Your task to perform on an android device: change the clock display to analog Image 0: 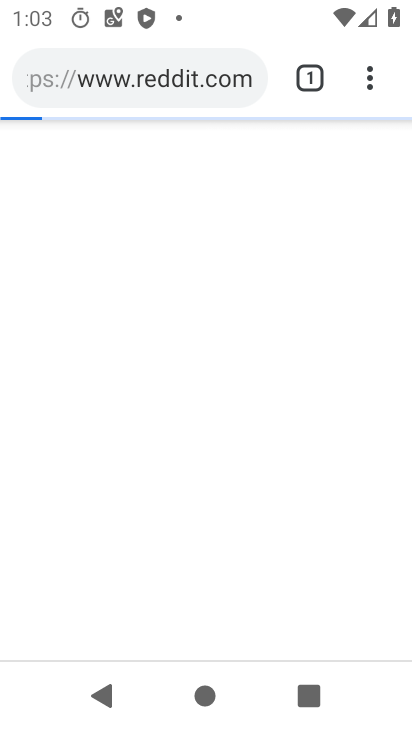
Step 0: press home button
Your task to perform on an android device: change the clock display to analog Image 1: 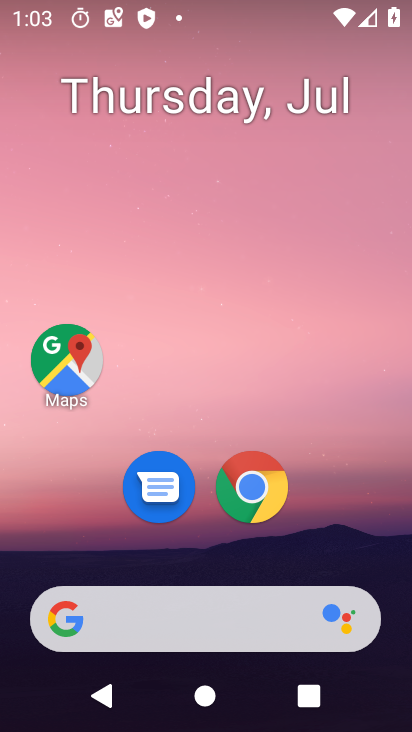
Step 1: drag from (212, 627) to (204, 246)
Your task to perform on an android device: change the clock display to analog Image 2: 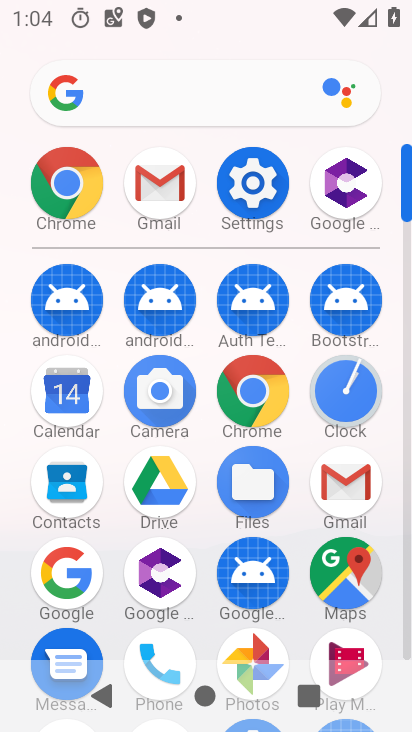
Step 2: click (340, 383)
Your task to perform on an android device: change the clock display to analog Image 3: 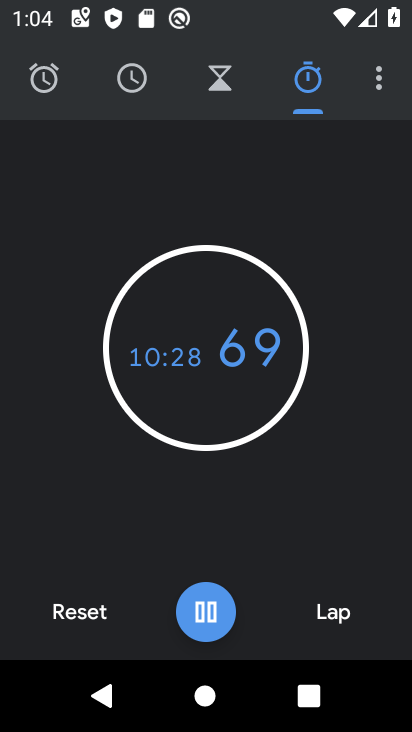
Step 3: click (386, 89)
Your task to perform on an android device: change the clock display to analog Image 4: 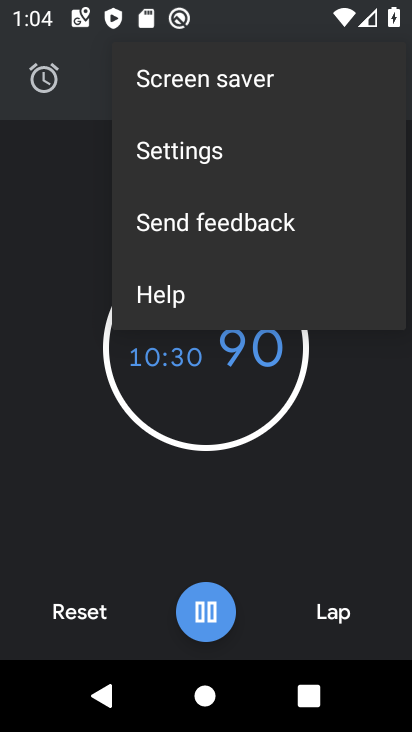
Step 4: click (156, 160)
Your task to perform on an android device: change the clock display to analog Image 5: 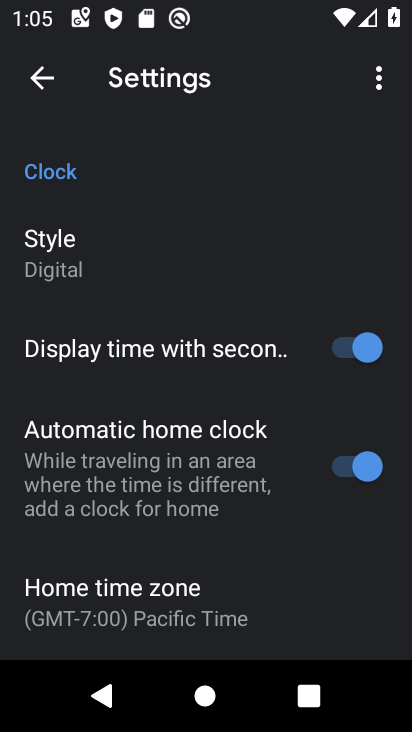
Step 5: click (113, 256)
Your task to perform on an android device: change the clock display to analog Image 6: 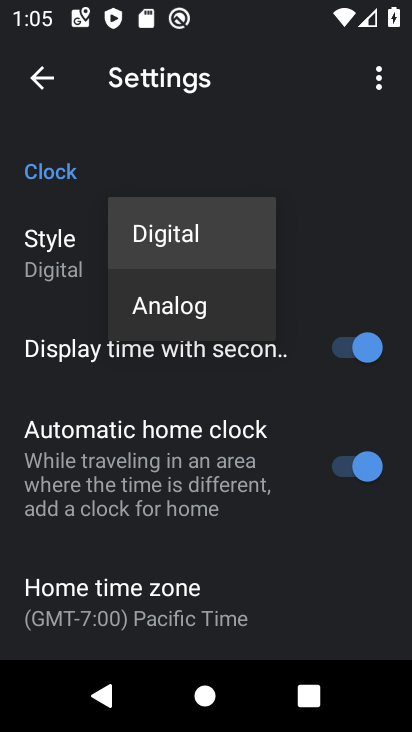
Step 6: click (180, 305)
Your task to perform on an android device: change the clock display to analog Image 7: 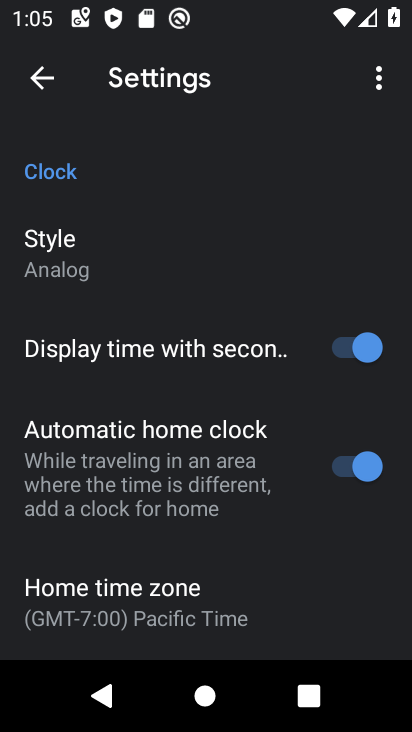
Step 7: task complete